Your task to perform on an android device: Add bose soundlink mini to the cart on amazon Image 0: 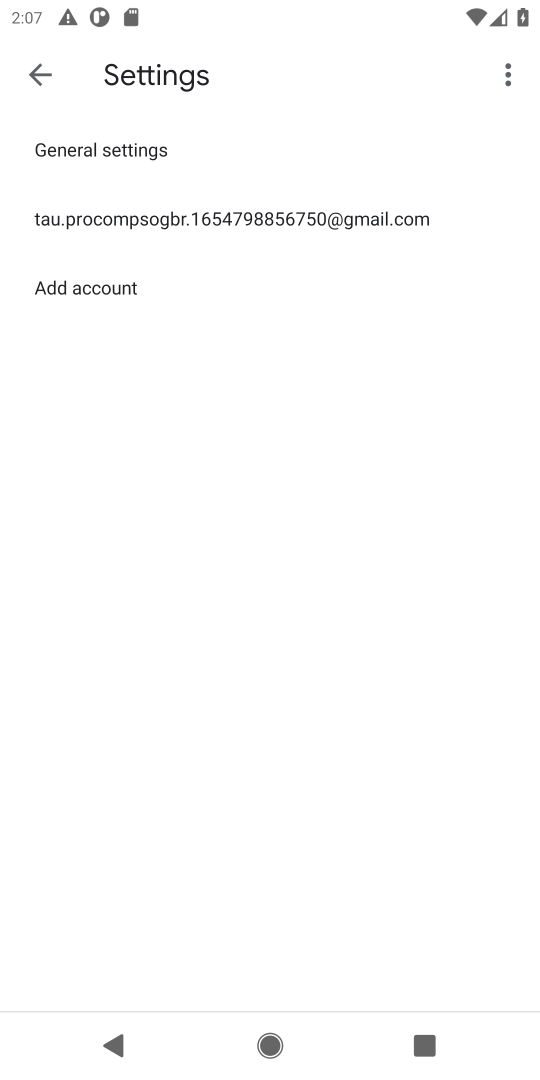
Step 0: press home button
Your task to perform on an android device: Add bose soundlink mini to the cart on amazon Image 1: 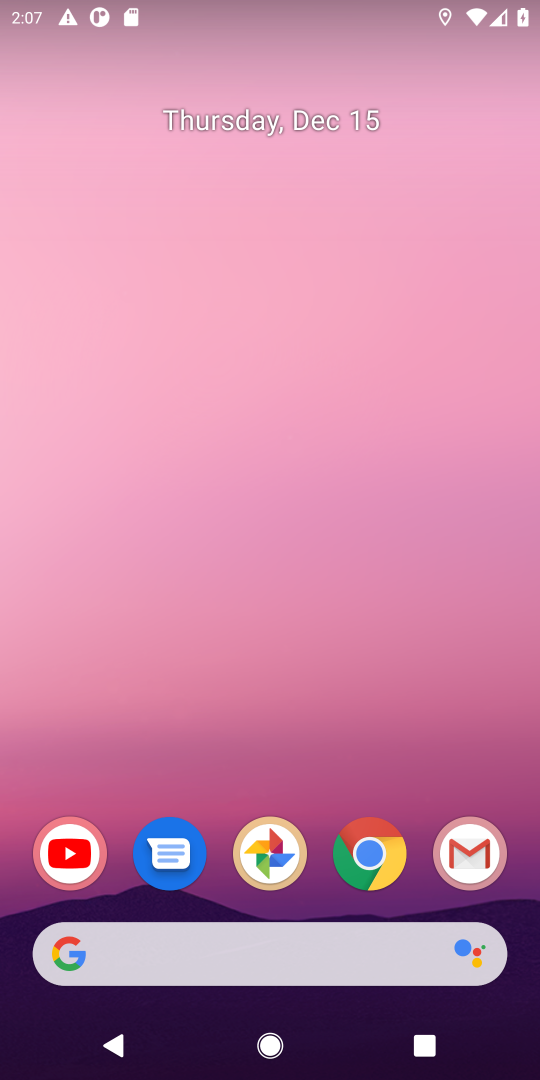
Step 1: drag from (249, 583) to (250, 213)
Your task to perform on an android device: Add bose soundlink mini to the cart on amazon Image 2: 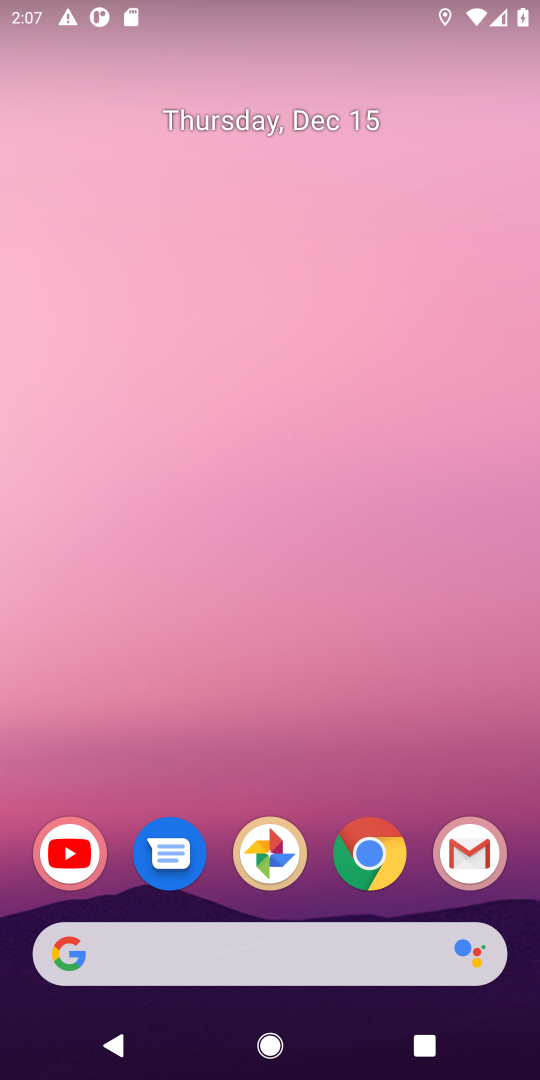
Step 2: click (261, 283)
Your task to perform on an android device: Add bose soundlink mini to the cart on amazon Image 3: 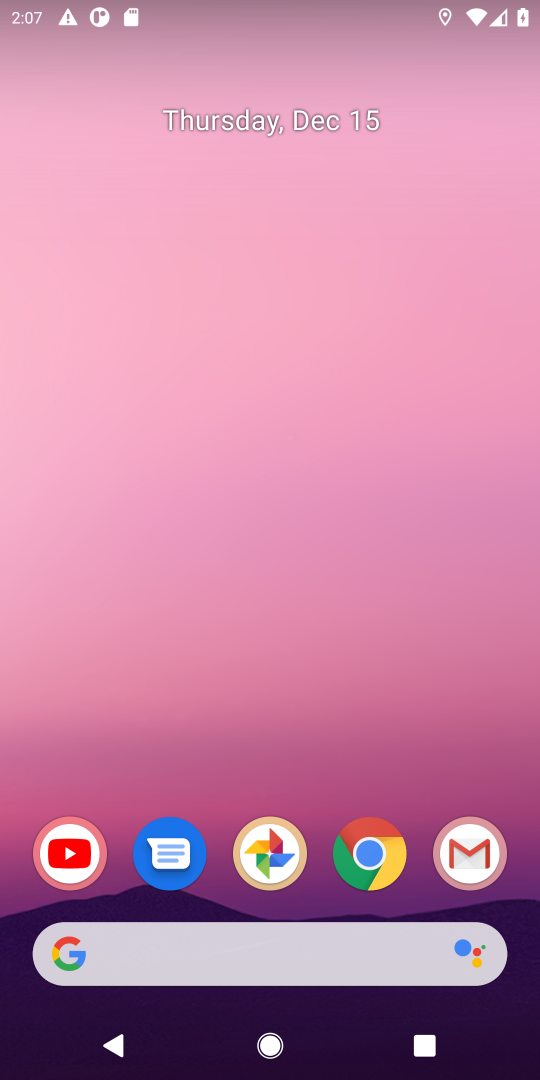
Step 3: drag from (257, 774) to (245, 234)
Your task to perform on an android device: Add bose soundlink mini to the cart on amazon Image 4: 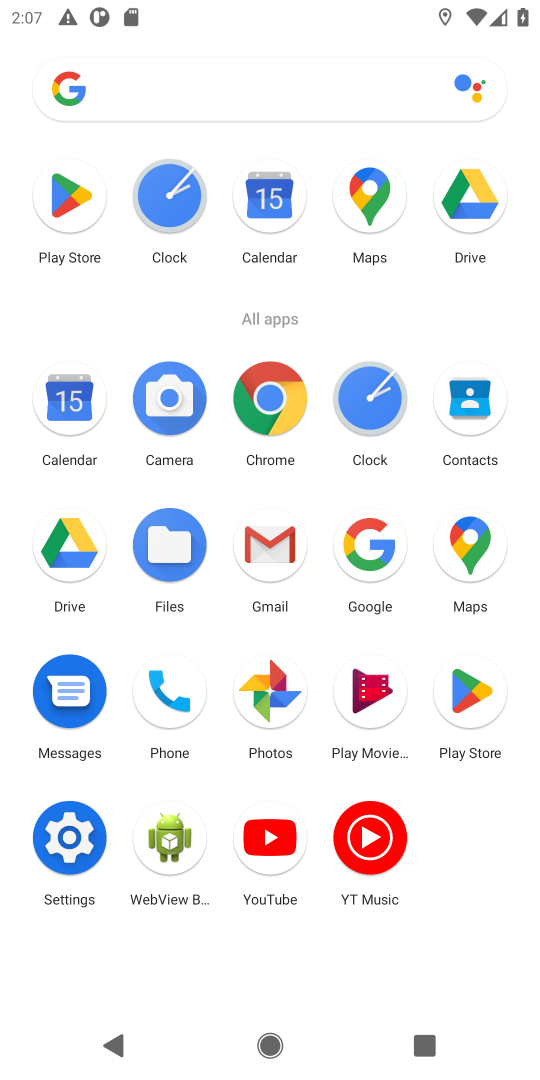
Step 4: click (358, 538)
Your task to perform on an android device: Add bose soundlink mini to the cart on amazon Image 5: 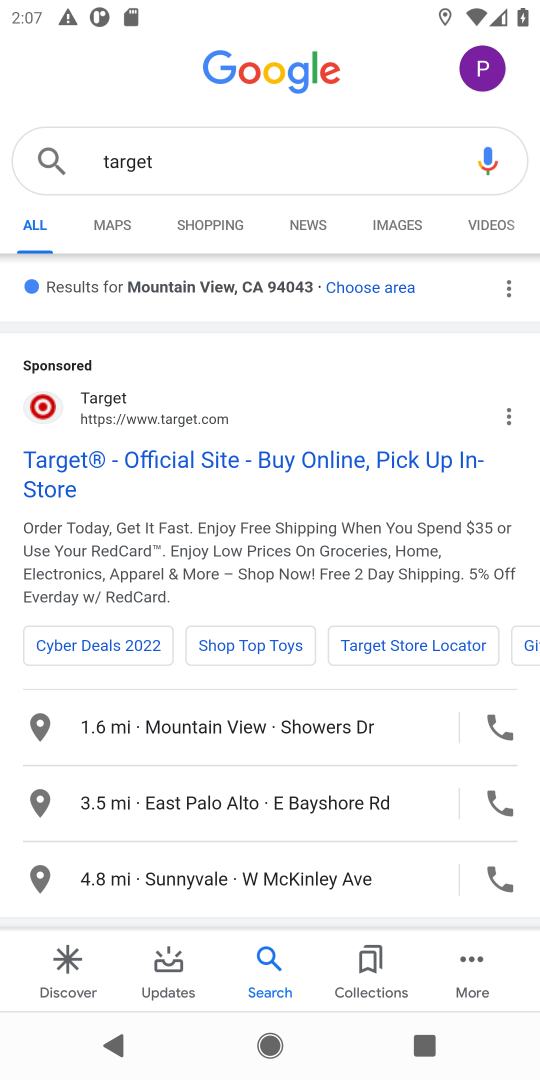
Step 5: click (180, 158)
Your task to perform on an android device: Add bose soundlink mini to the cart on amazon Image 6: 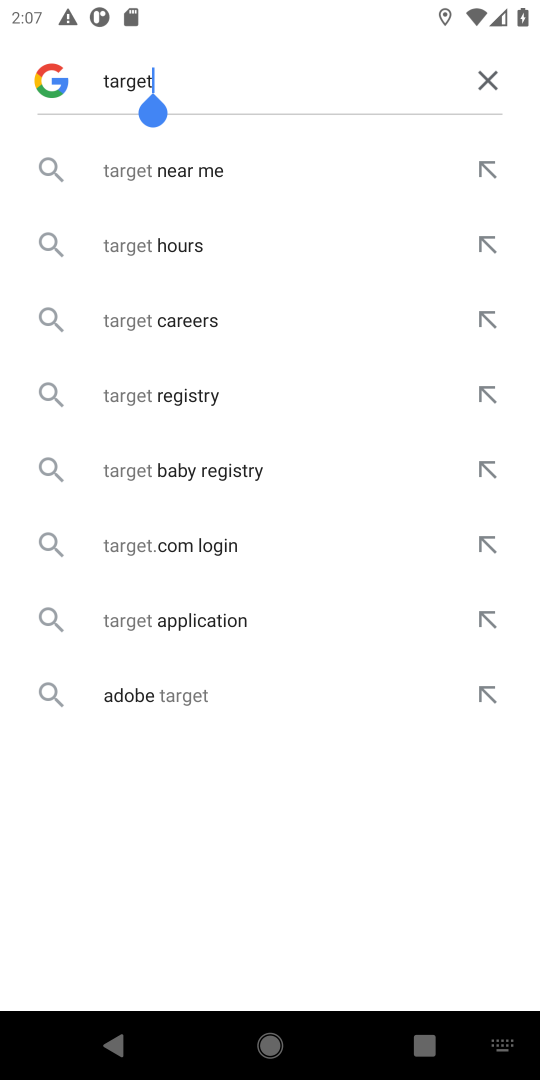
Step 6: click (479, 86)
Your task to perform on an android device: Add bose soundlink mini to the cart on amazon Image 7: 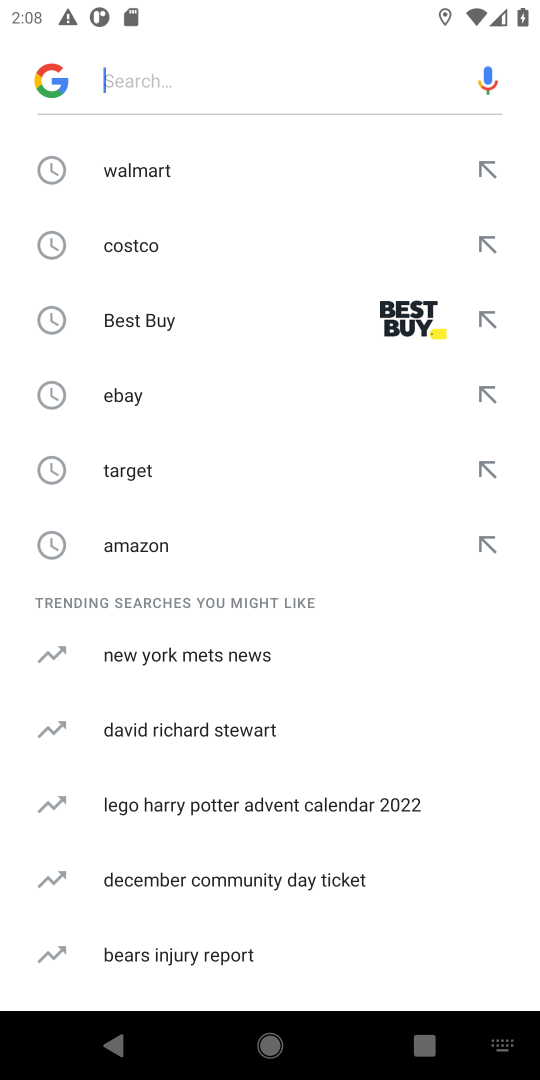
Step 7: click (137, 531)
Your task to perform on an android device: Add bose soundlink mini to the cart on amazon Image 8: 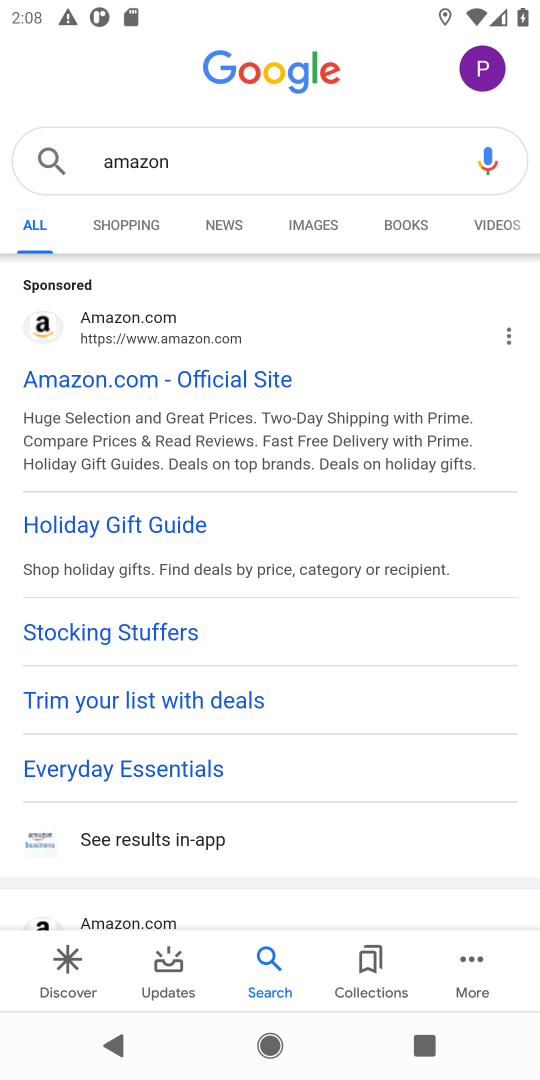
Step 8: click (124, 370)
Your task to perform on an android device: Add bose soundlink mini to the cart on amazon Image 9: 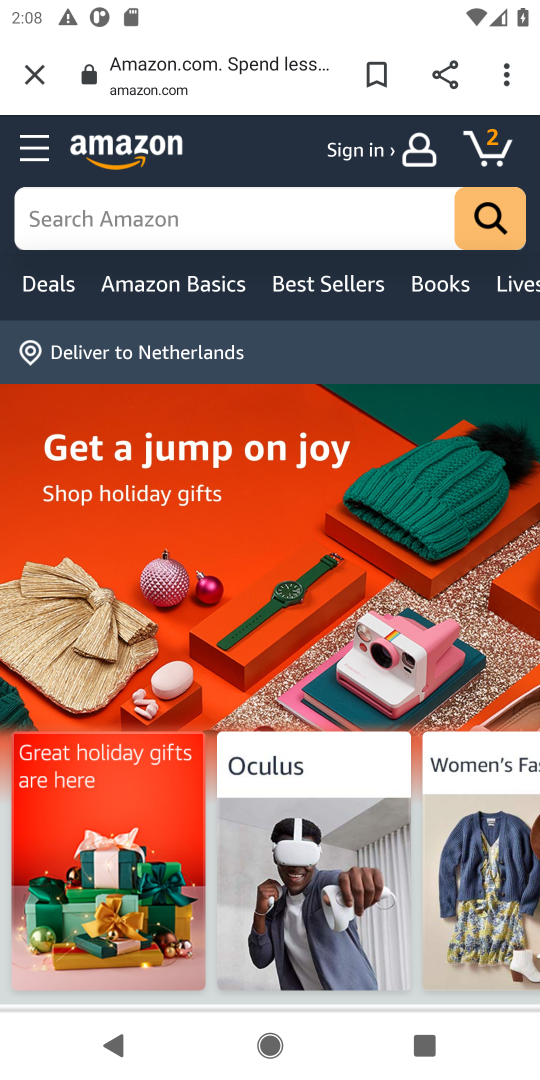
Step 9: click (85, 223)
Your task to perform on an android device: Add bose soundlink mini to the cart on amazon Image 10: 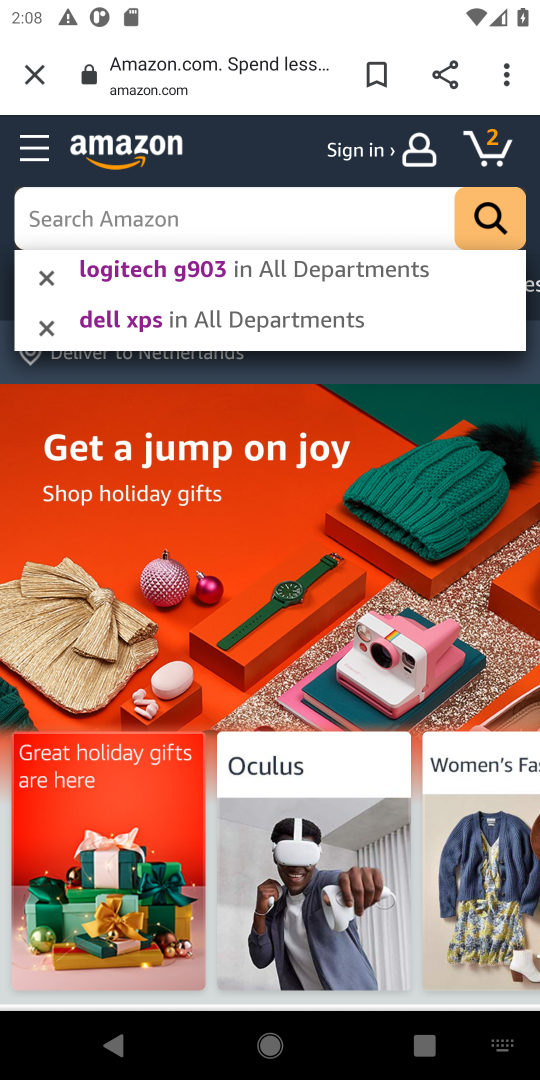
Step 10: type "bose soundlink mini"
Your task to perform on an android device: Add bose soundlink mini to the cart on amazon Image 11: 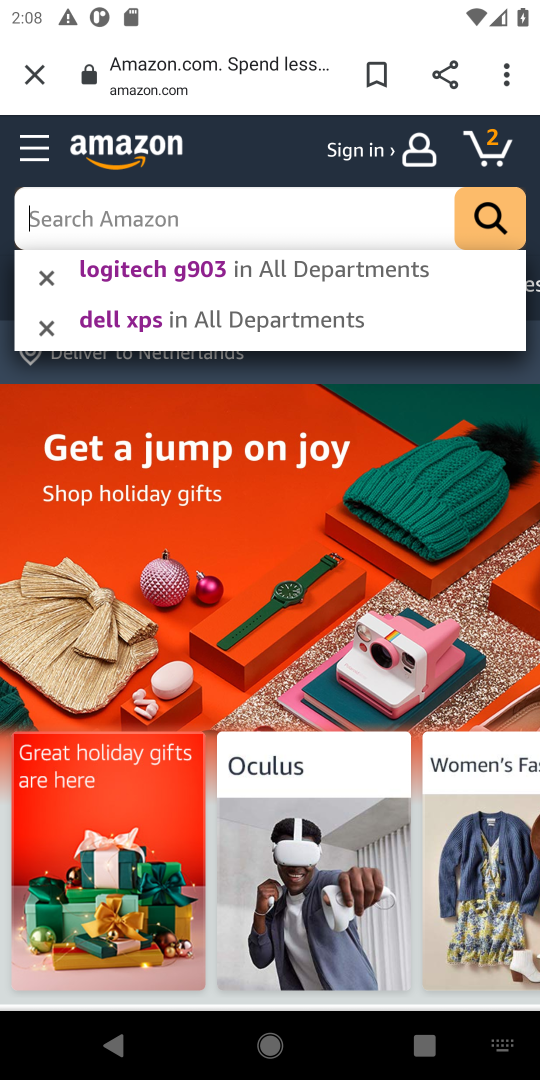
Step 11: click (485, 222)
Your task to perform on an android device: Add bose soundlink mini to the cart on amazon Image 12: 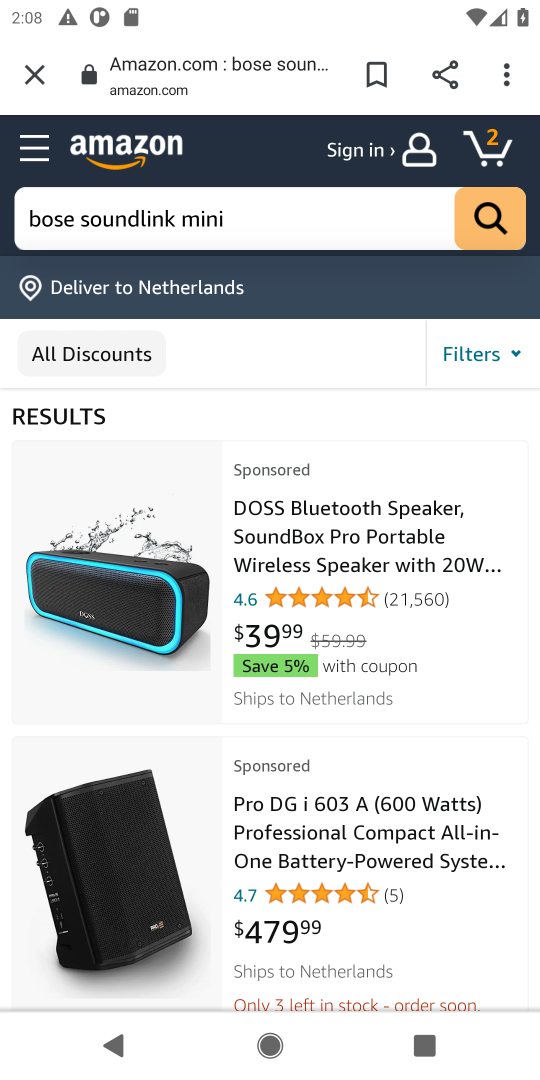
Step 12: click (337, 529)
Your task to perform on an android device: Add bose soundlink mini to the cart on amazon Image 13: 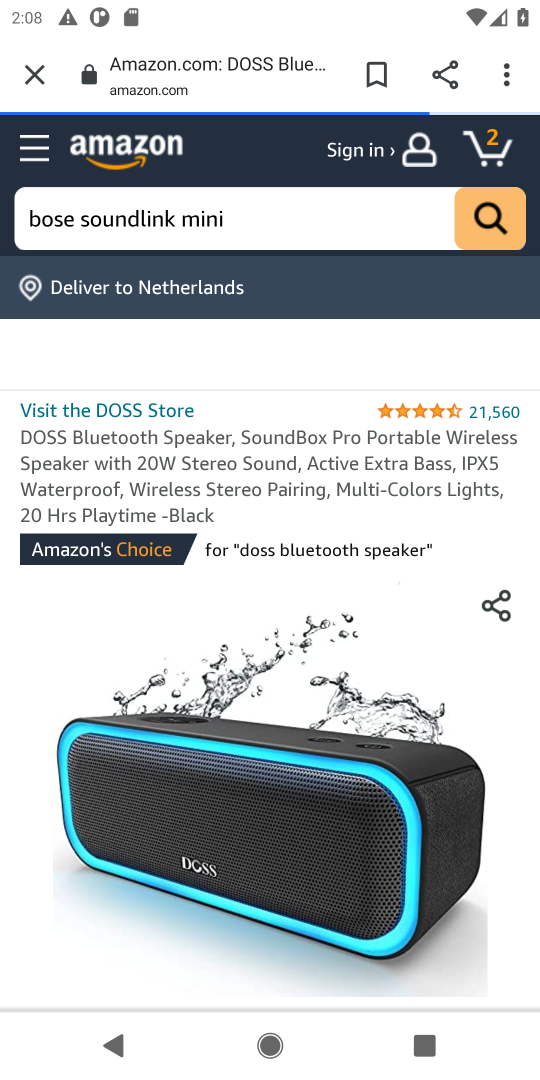
Step 13: drag from (294, 937) to (288, 469)
Your task to perform on an android device: Add bose soundlink mini to the cart on amazon Image 14: 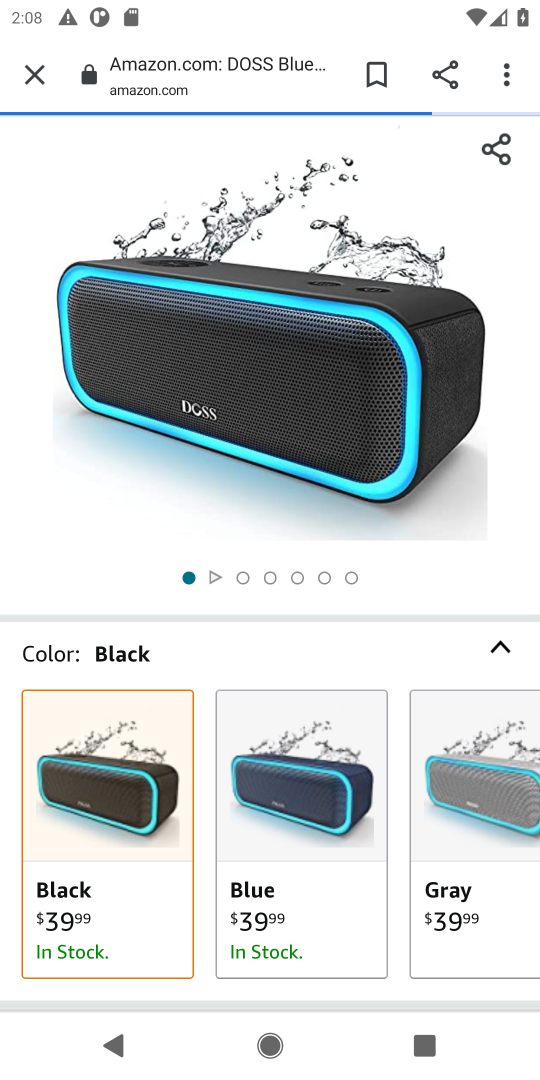
Step 14: drag from (321, 775) to (302, 457)
Your task to perform on an android device: Add bose soundlink mini to the cart on amazon Image 15: 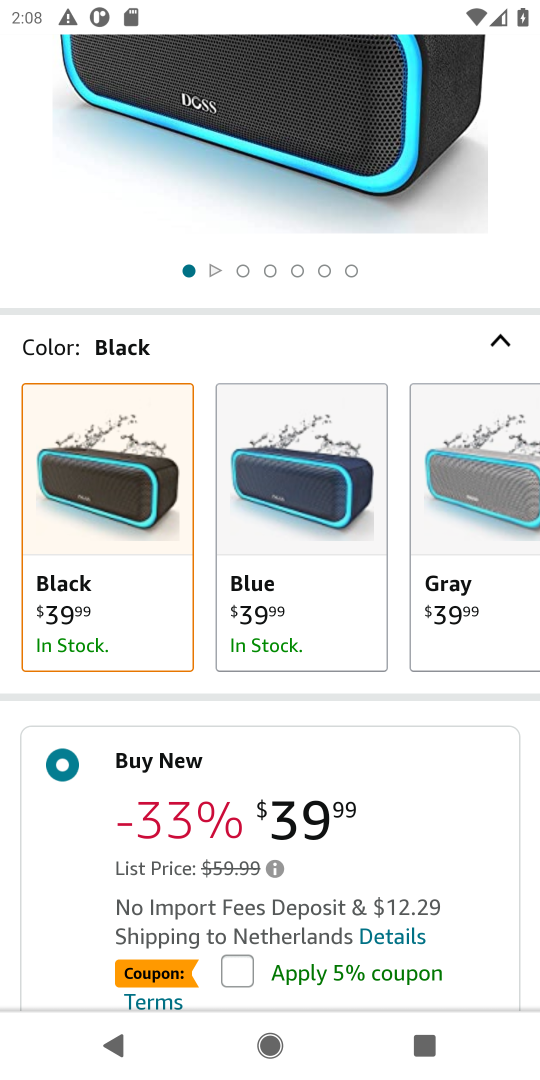
Step 15: drag from (341, 965) to (351, 458)
Your task to perform on an android device: Add bose soundlink mini to the cart on amazon Image 16: 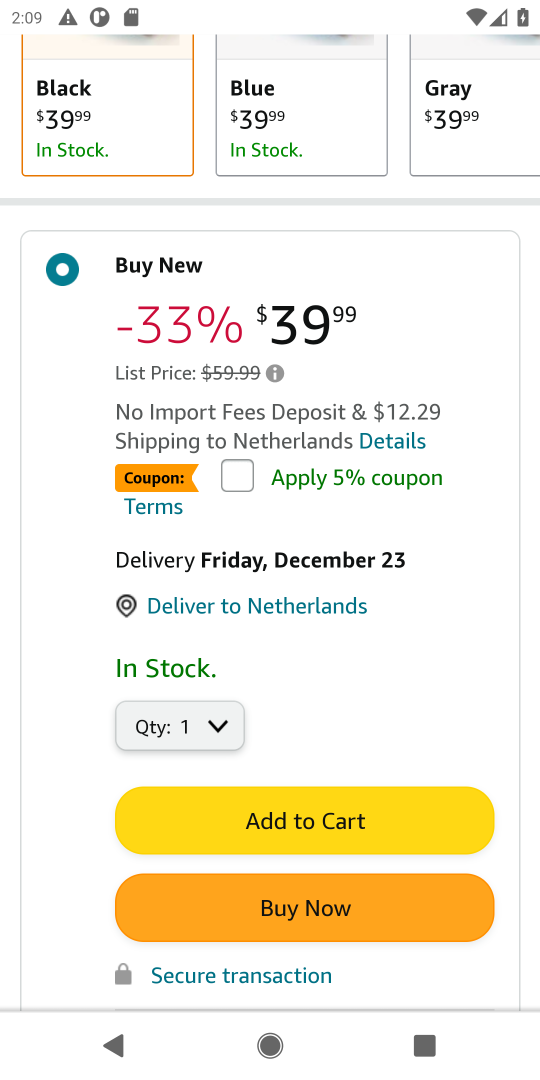
Step 16: click (328, 833)
Your task to perform on an android device: Add bose soundlink mini to the cart on amazon Image 17: 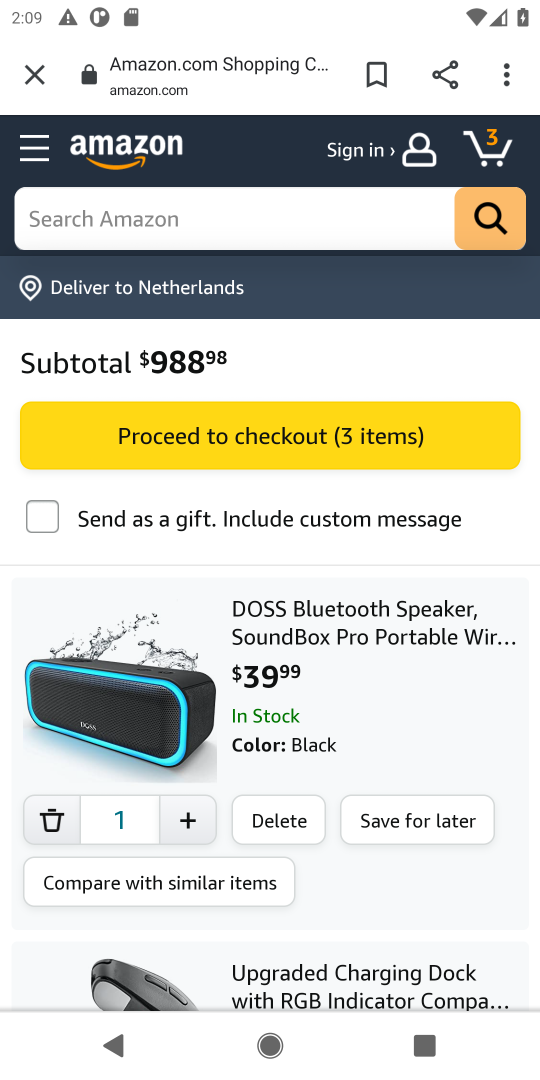
Step 17: task complete